Your task to perform on an android device: change the clock display to analog Image 0: 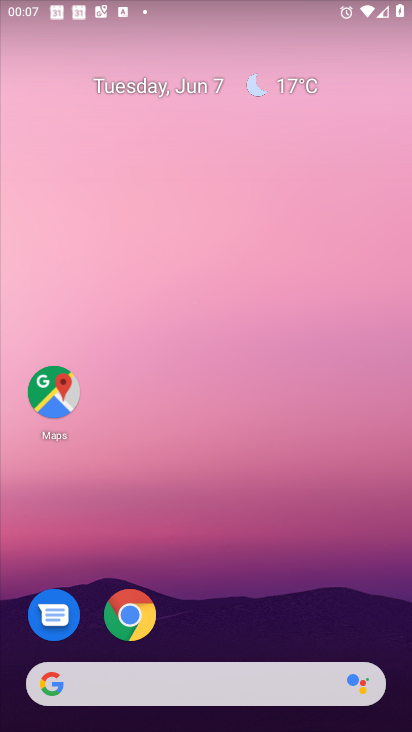
Step 0: drag from (397, 596) to (384, 91)
Your task to perform on an android device: change the clock display to analog Image 1: 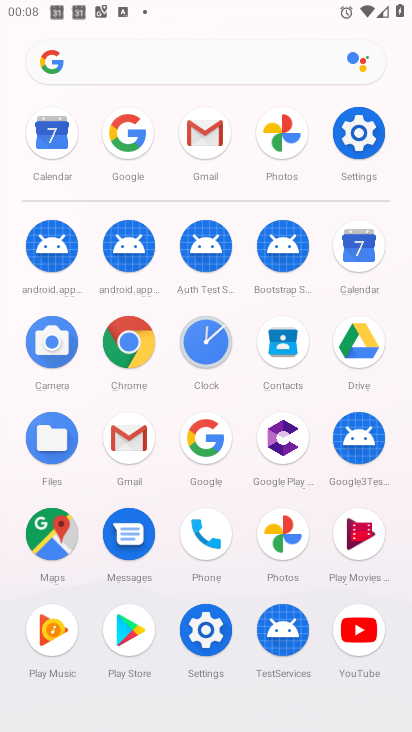
Step 1: click (189, 342)
Your task to perform on an android device: change the clock display to analog Image 2: 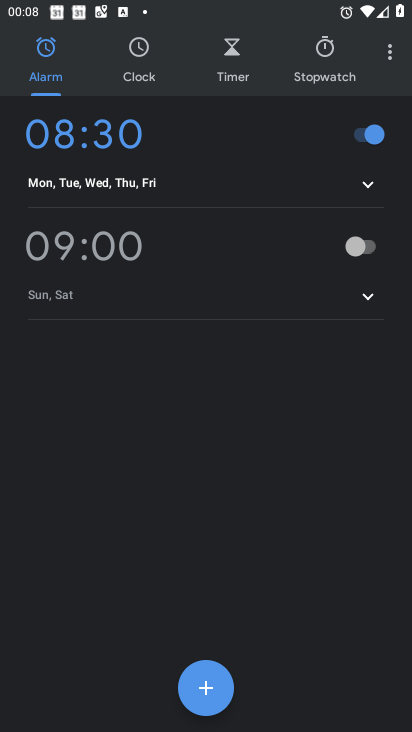
Step 2: click (388, 53)
Your task to perform on an android device: change the clock display to analog Image 3: 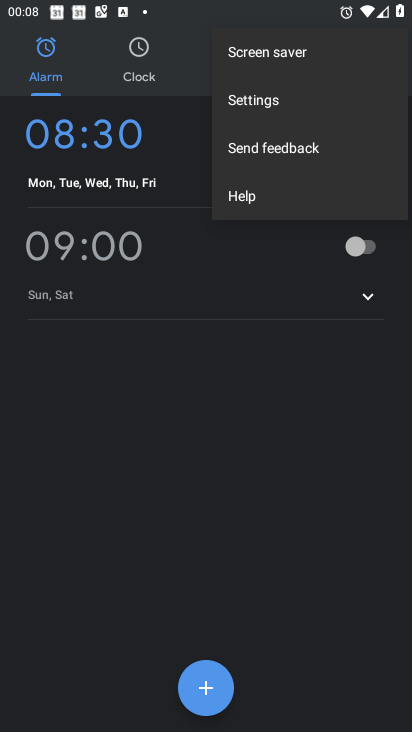
Step 3: click (278, 98)
Your task to perform on an android device: change the clock display to analog Image 4: 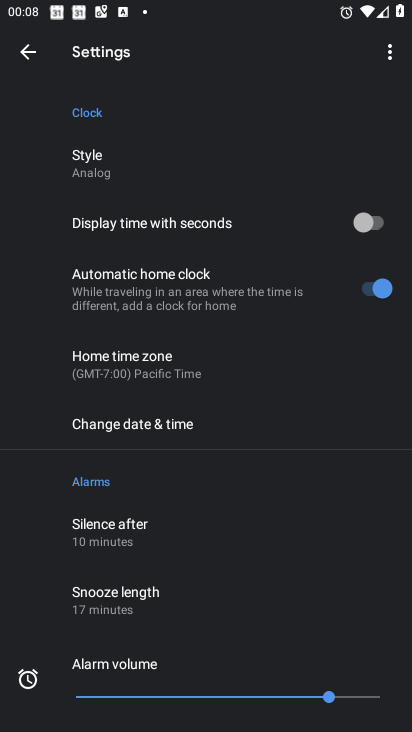
Step 4: click (95, 156)
Your task to perform on an android device: change the clock display to analog Image 5: 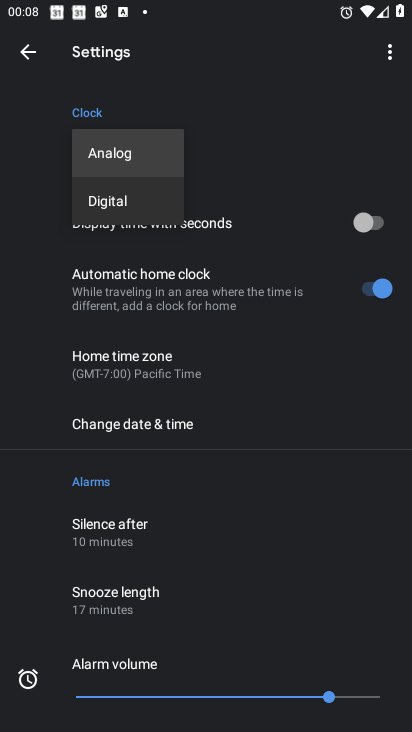
Step 5: task complete